Your task to perform on an android device: What's the weather going to be this weekend? Image 0: 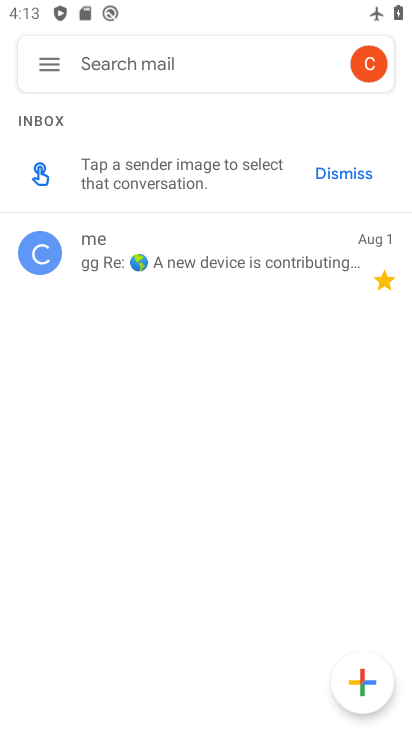
Step 0: press home button
Your task to perform on an android device: What's the weather going to be this weekend? Image 1: 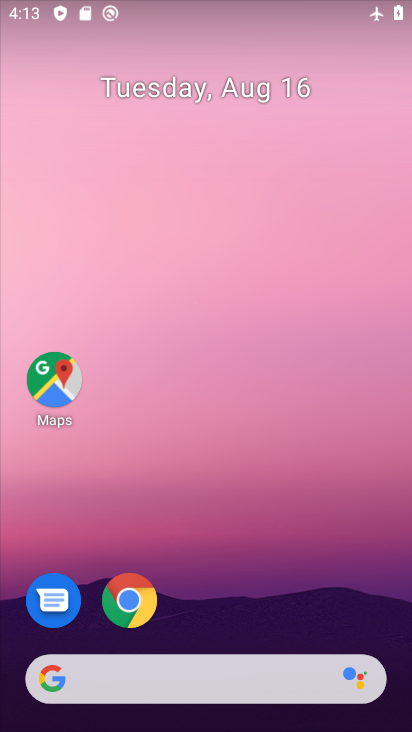
Step 1: drag from (192, 528) to (220, 231)
Your task to perform on an android device: What's the weather going to be this weekend? Image 2: 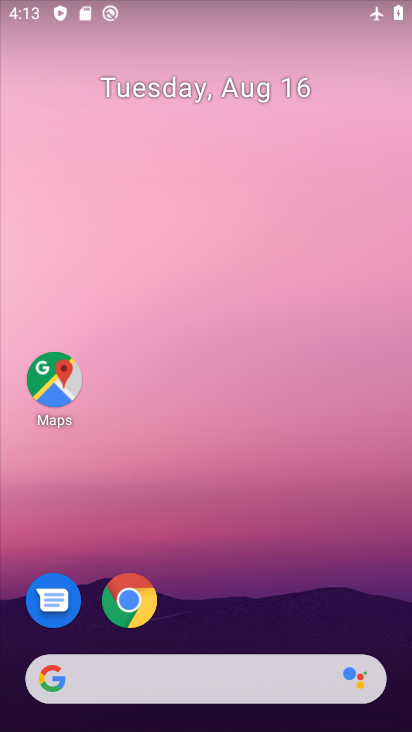
Step 2: drag from (183, 615) to (355, 7)
Your task to perform on an android device: What's the weather going to be this weekend? Image 3: 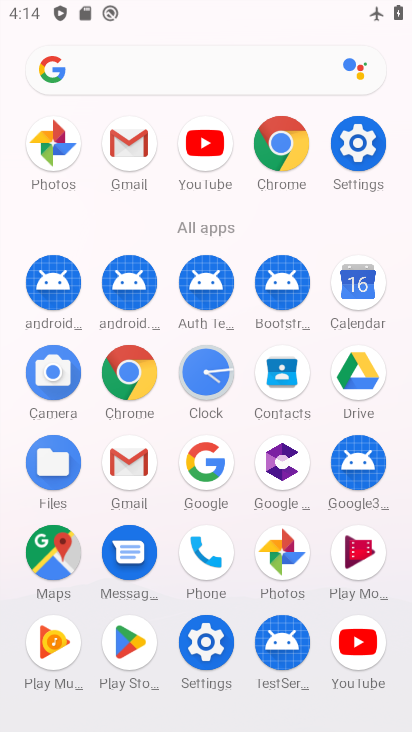
Step 3: click (203, 82)
Your task to perform on an android device: What's the weather going to be this weekend? Image 4: 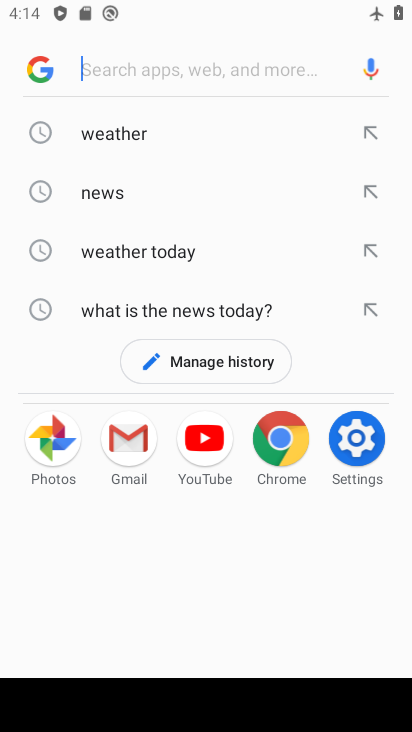
Step 4: click (119, 132)
Your task to perform on an android device: What's the weather going to be this weekend? Image 5: 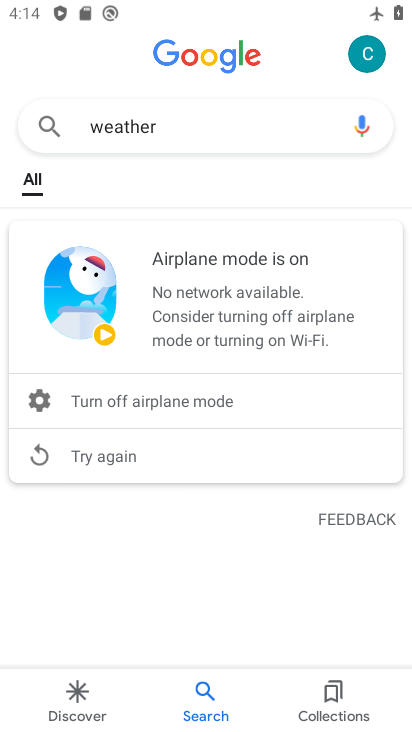
Step 5: task complete